Your task to perform on an android device: Open location settings Image 0: 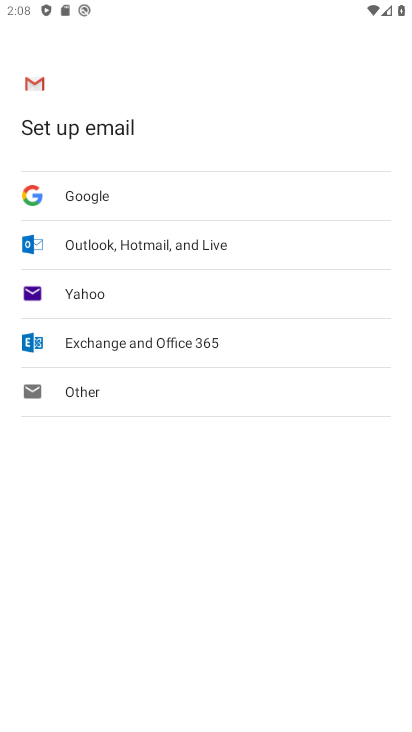
Step 0: press home button
Your task to perform on an android device: Open location settings Image 1: 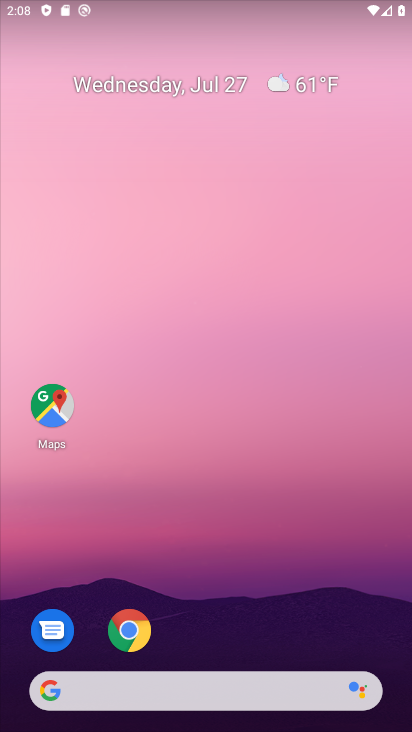
Step 1: drag from (267, 632) to (173, 63)
Your task to perform on an android device: Open location settings Image 2: 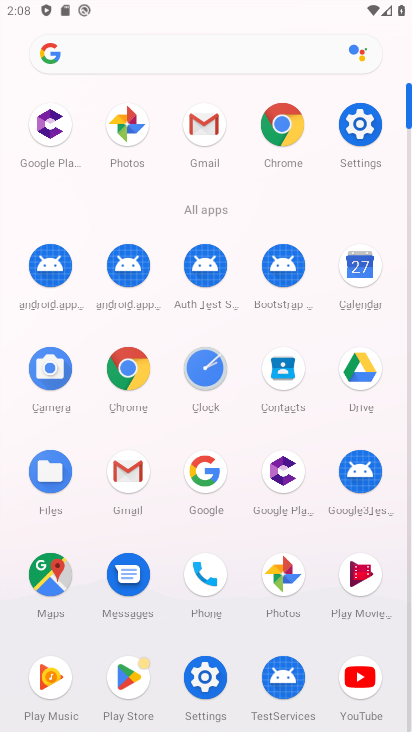
Step 2: click (211, 692)
Your task to perform on an android device: Open location settings Image 3: 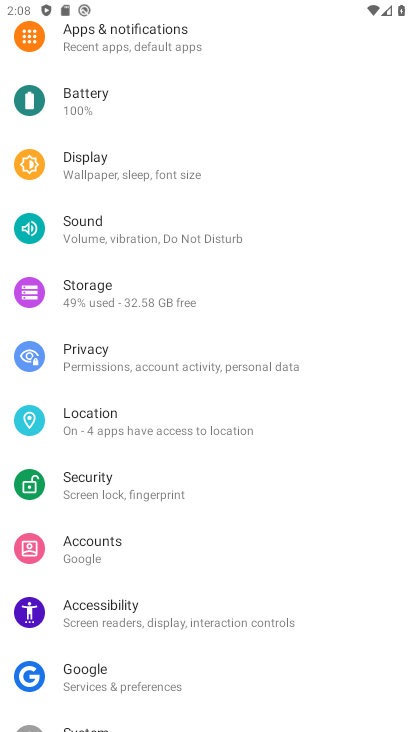
Step 3: click (87, 427)
Your task to perform on an android device: Open location settings Image 4: 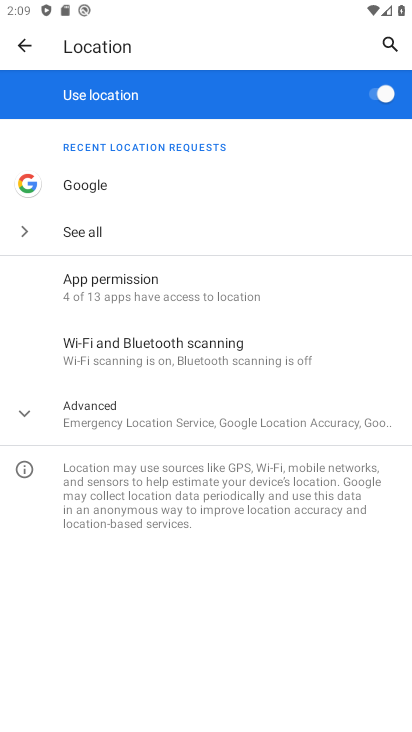
Step 4: task complete